Your task to perform on an android device: search for starred emails in the gmail app Image 0: 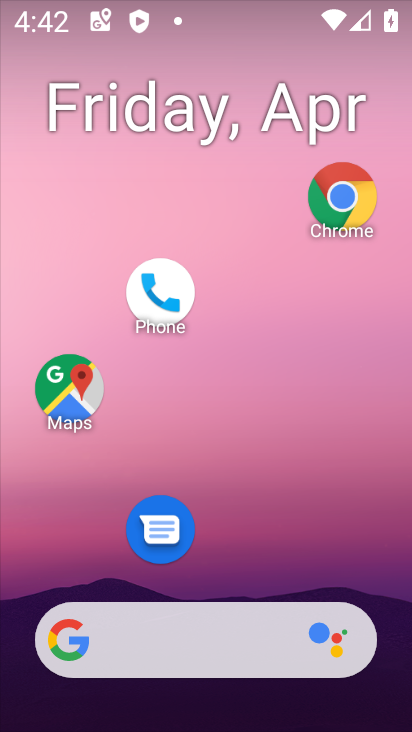
Step 0: drag from (239, 569) to (207, 41)
Your task to perform on an android device: search for starred emails in the gmail app Image 1: 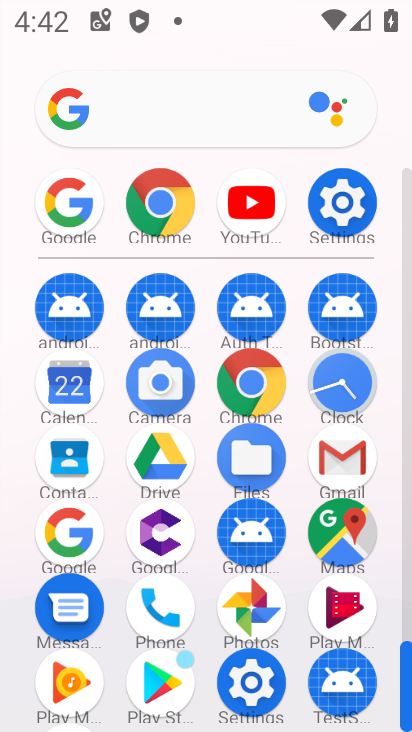
Step 1: click (340, 454)
Your task to perform on an android device: search for starred emails in the gmail app Image 2: 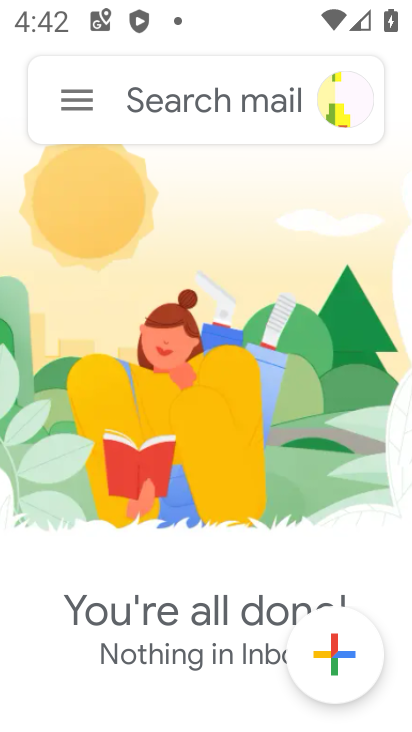
Step 2: click (79, 103)
Your task to perform on an android device: search for starred emails in the gmail app Image 3: 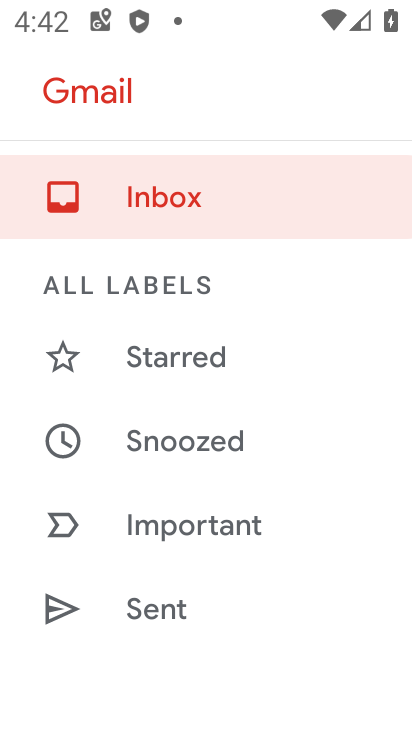
Step 3: click (93, 346)
Your task to perform on an android device: search for starred emails in the gmail app Image 4: 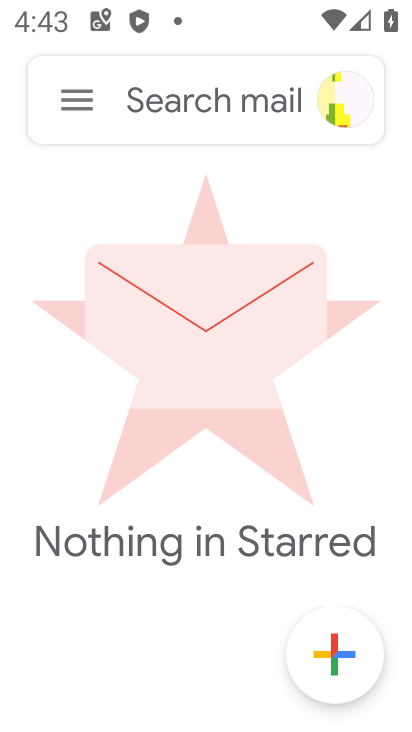
Step 4: task complete